Your task to perform on an android device: change the clock style Image 0: 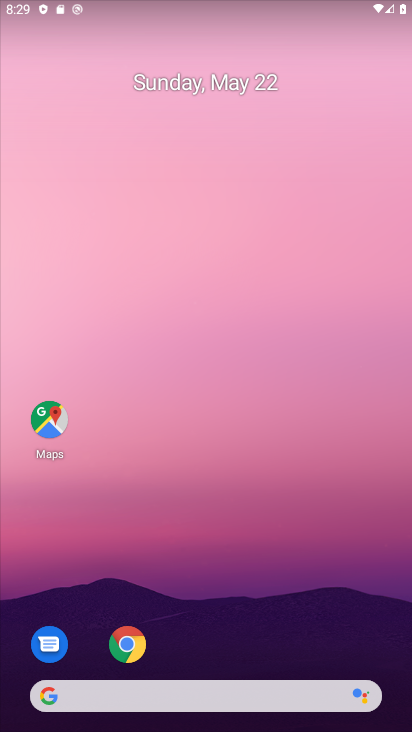
Step 0: drag from (203, 695) to (260, 242)
Your task to perform on an android device: change the clock style Image 1: 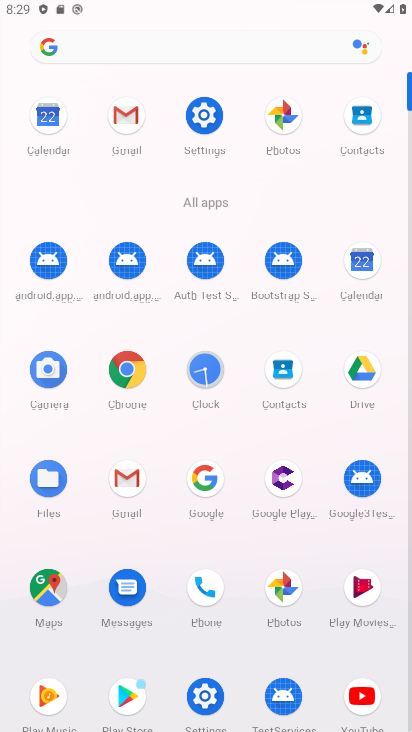
Step 1: click (187, 392)
Your task to perform on an android device: change the clock style Image 2: 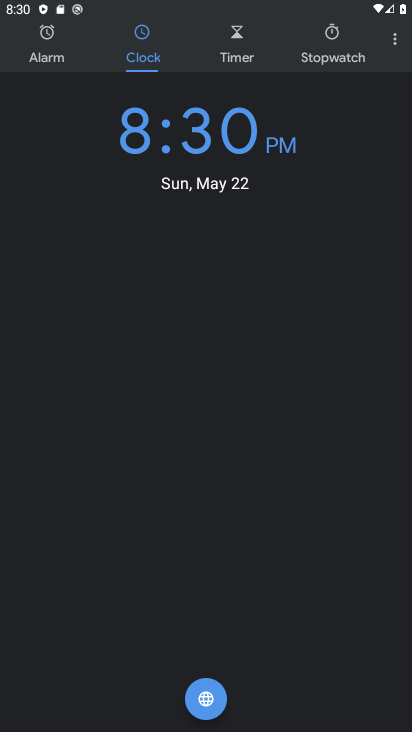
Step 2: click (394, 41)
Your task to perform on an android device: change the clock style Image 3: 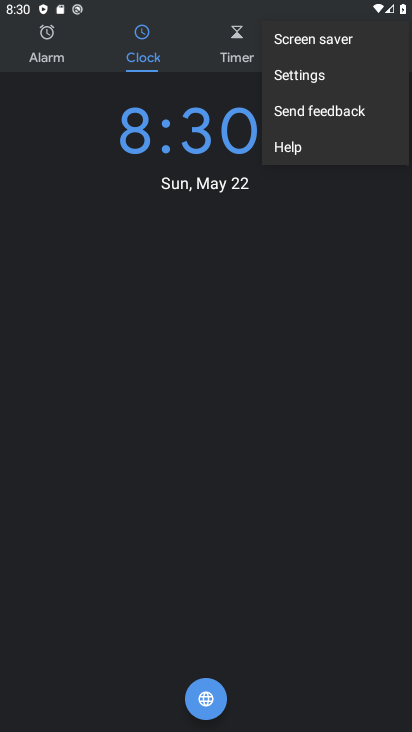
Step 3: click (305, 70)
Your task to perform on an android device: change the clock style Image 4: 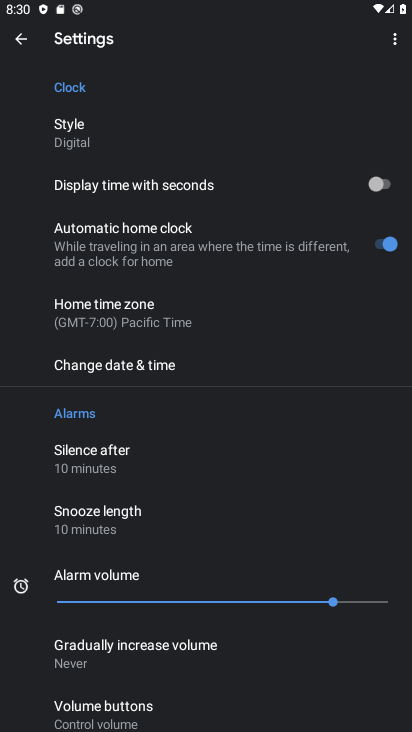
Step 4: click (98, 135)
Your task to perform on an android device: change the clock style Image 5: 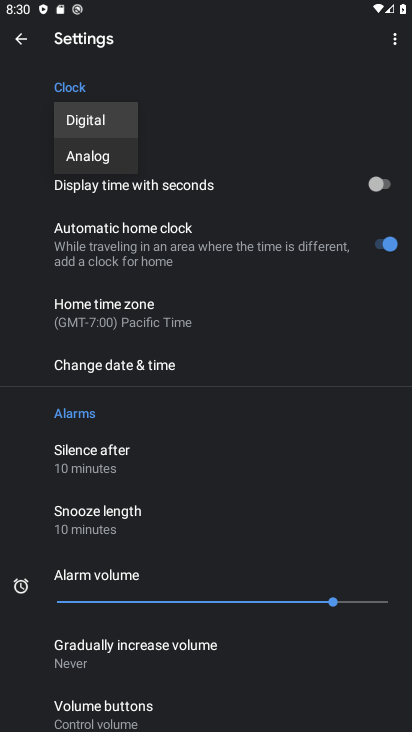
Step 5: click (118, 173)
Your task to perform on an android device: change the clock style Image 6: 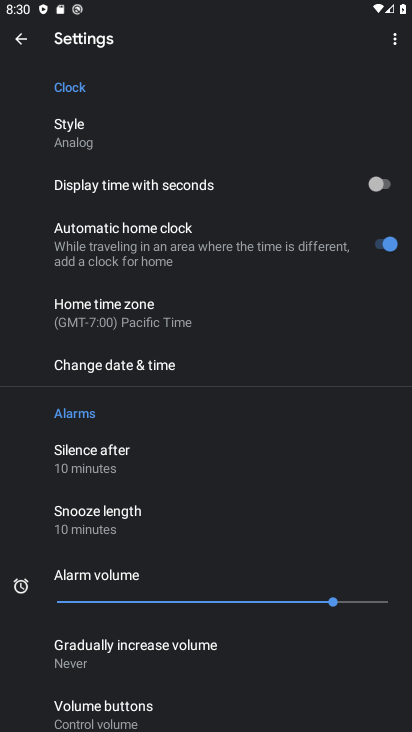
Step 6: task complete